Your task to perform on an android device: Clear the cart on walmart.com. Image 0: 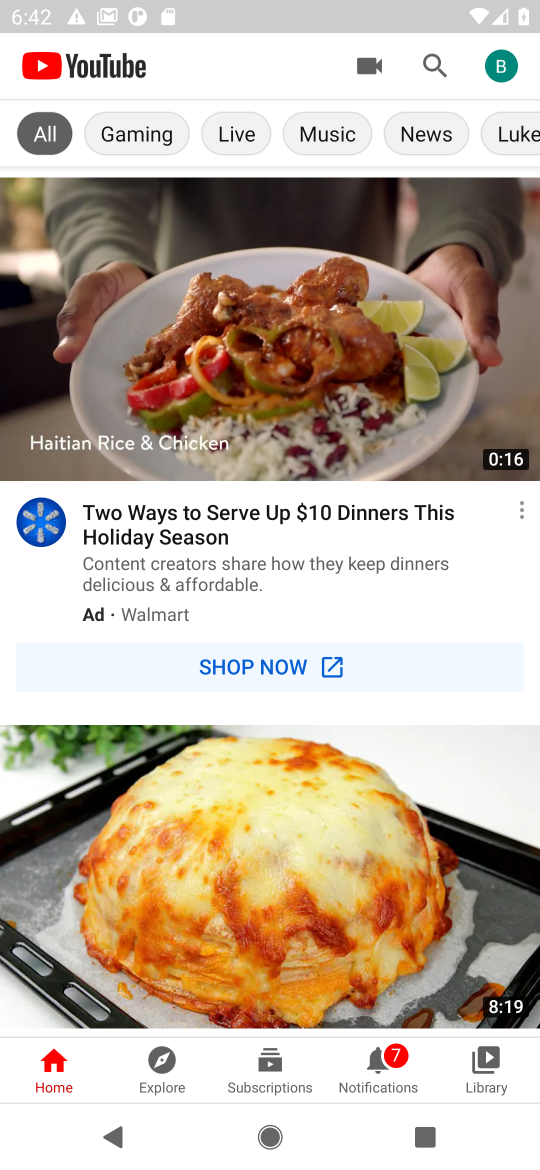
Step 0: press home button
Your task to perform on an android device: Clear the cart on walmart.com. Image 1: 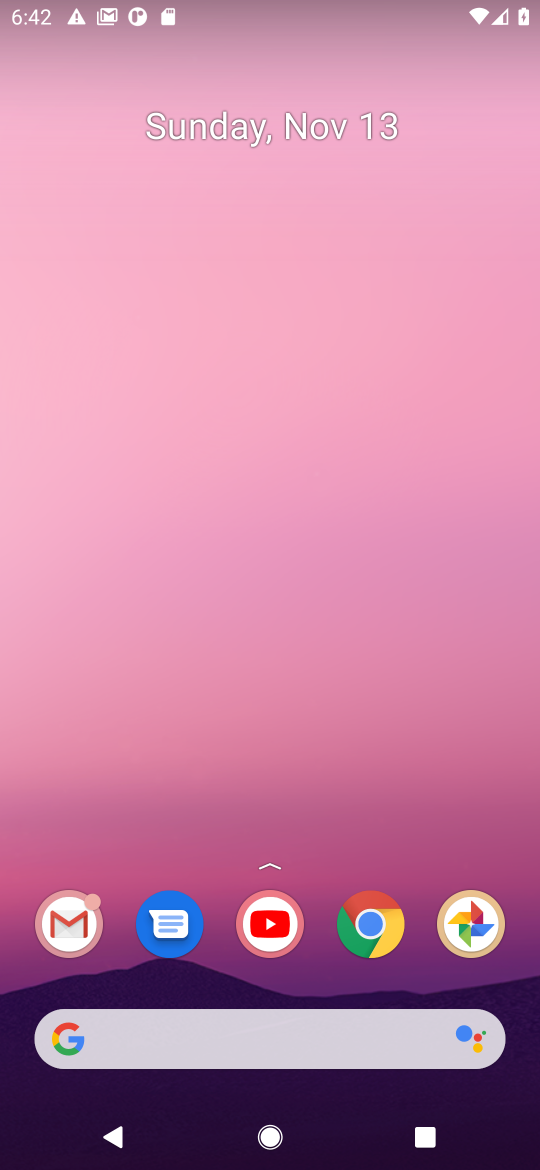
Step 1: click (361, 917)
Your task to perform on an android device: Clear the cart on walmart.com. Image 2: 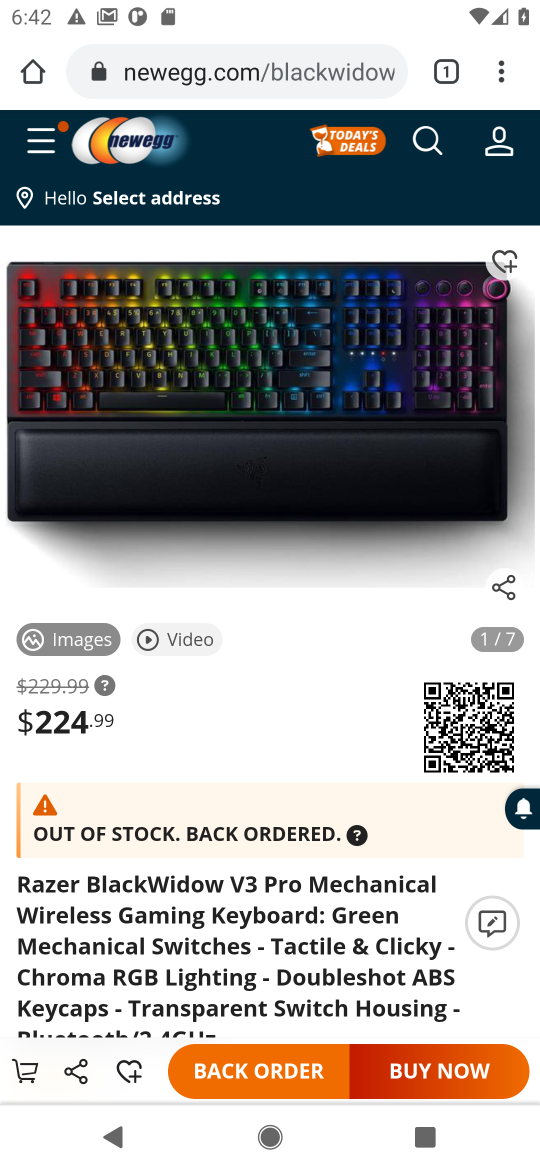
Step 2: click (202, 84)
Your task to perform on an android device: Clear the cart on walmart.com. Image 3: 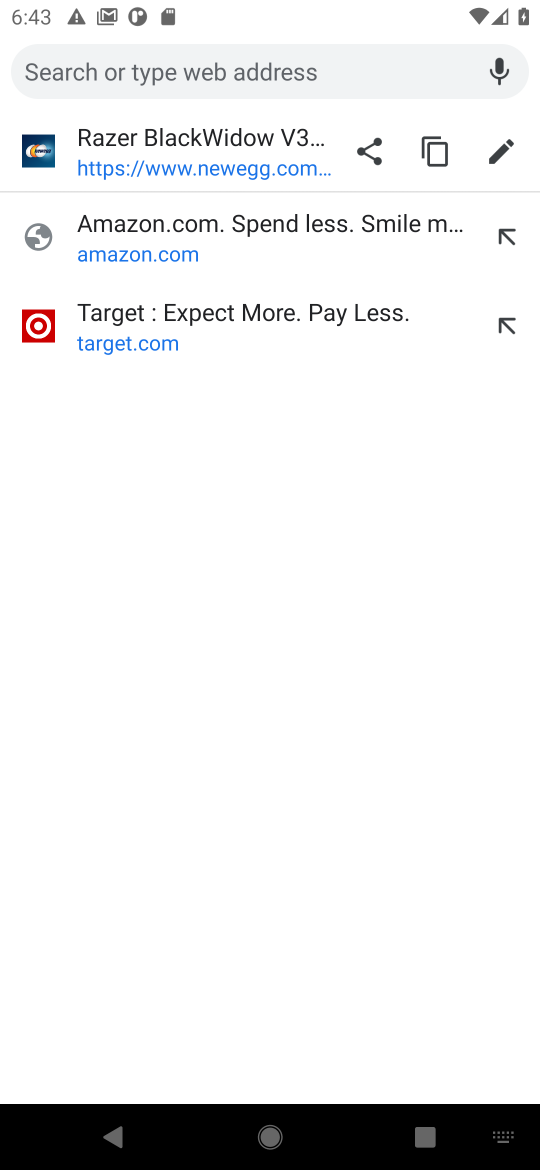
Step 3: type "walmart.com"
Your task to perform on an android device: Clear the cart on walmart.com. Image 4: 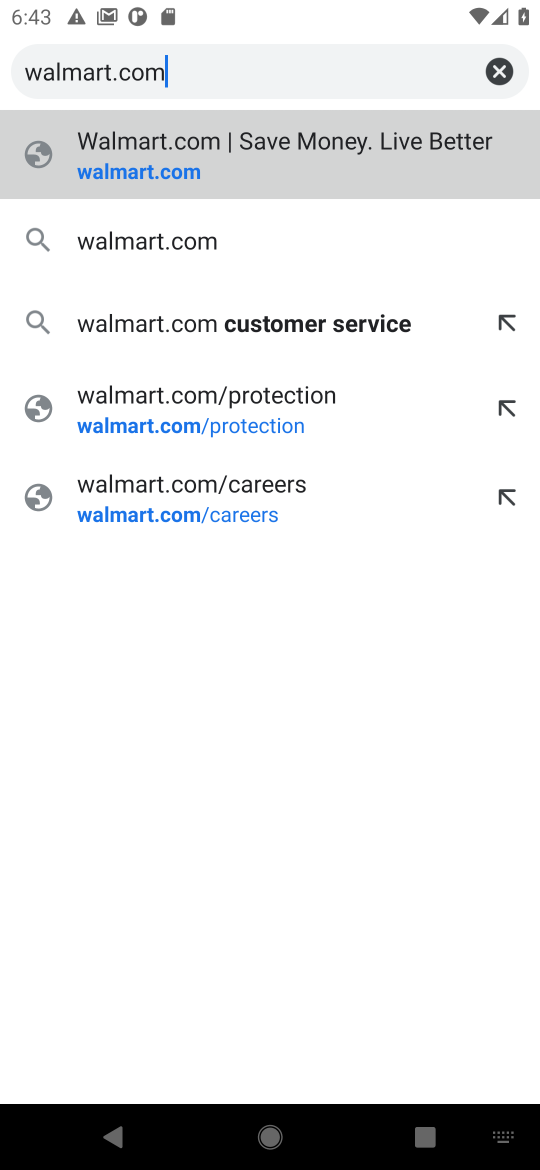
Step 4: click (111, 163)
Your task to perform on an android device: Clear the cart on walmart.com. Image 5: 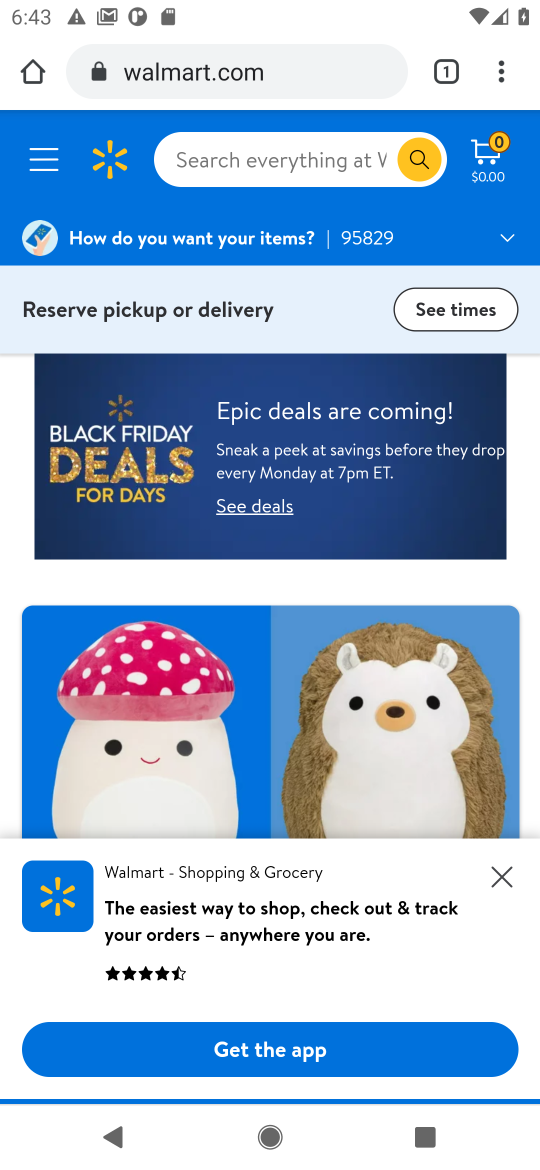
Step 5: click (476, 171)
Your task to perform on an android device: Clear the cart on walmart.com. Image 6: 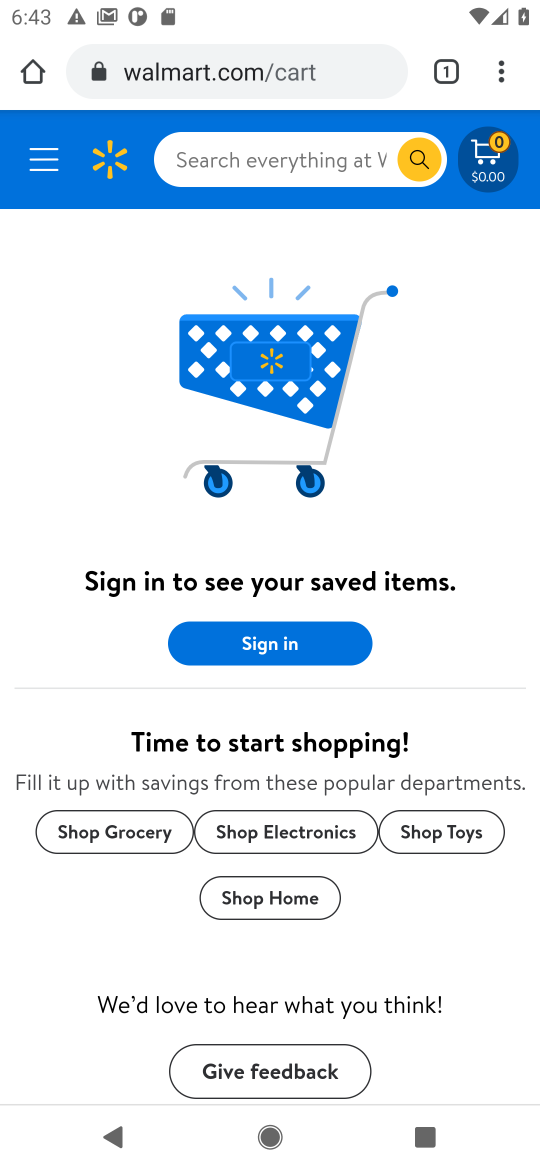
Step 6: task complete